Your task to perform on an android device: open app "AliExpress" Image 0: 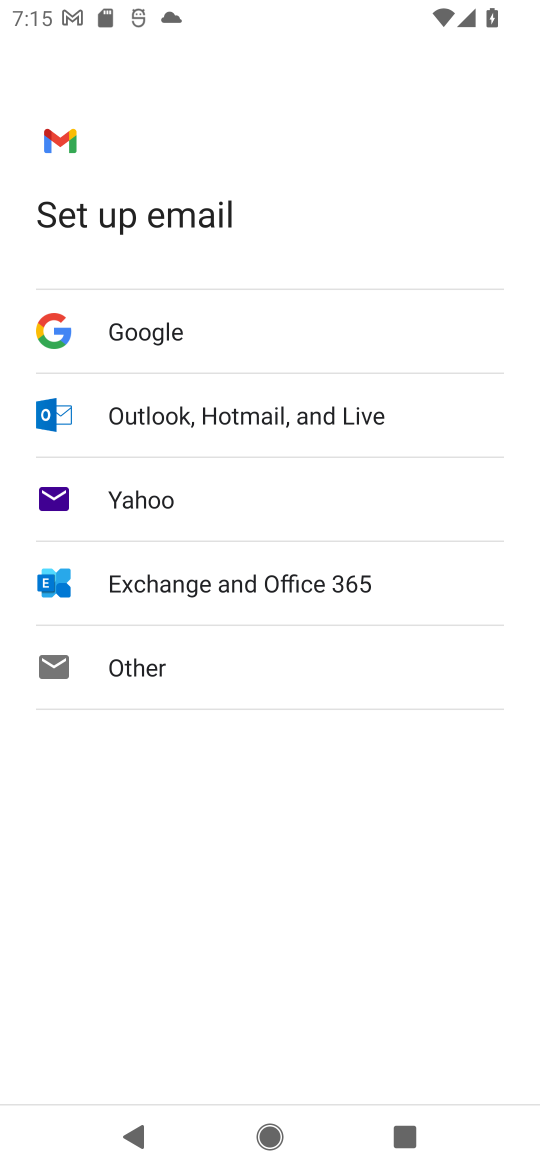
Step 0: press home button
Your task to perform on an android device: open app "AliExpress" Image 1: 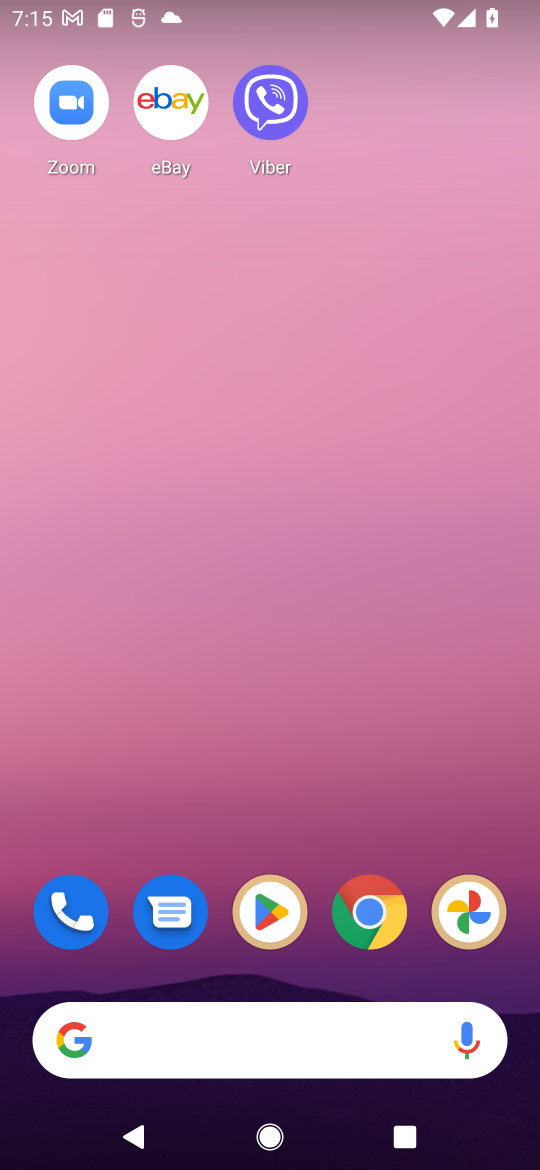
Step 1: click (274, 903)
Your task to perform on an android device: open app "AliExpress" Image 2: 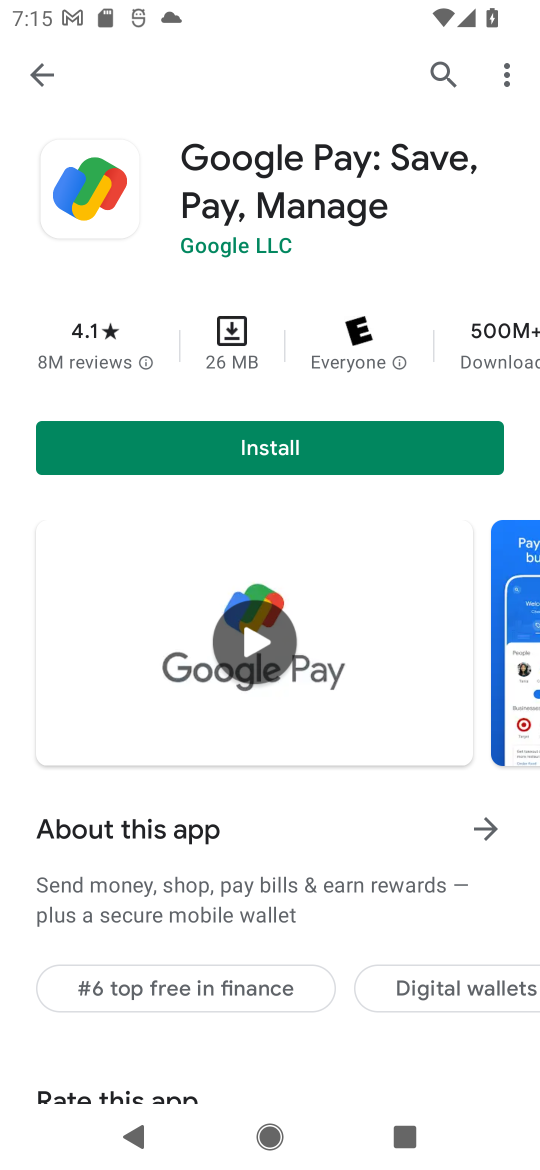
Step 2: click (433, 66)
Your task to perform on an android device: open app "AliExpress" Image 3: 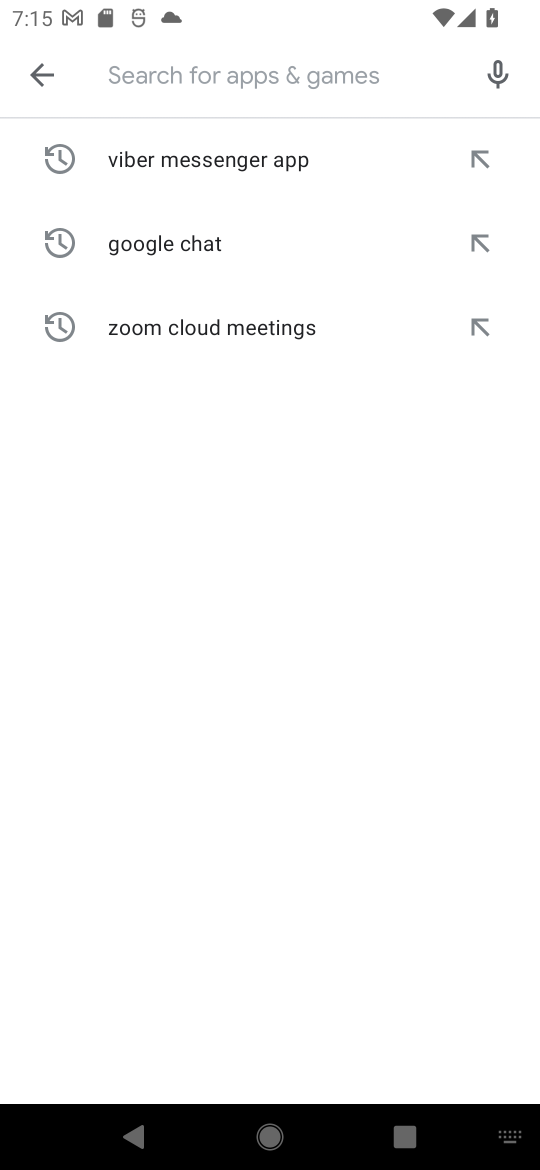
Step 3: type "AliExpress"
Your task to perform on an android device: open app "AliExpress" Image 4: 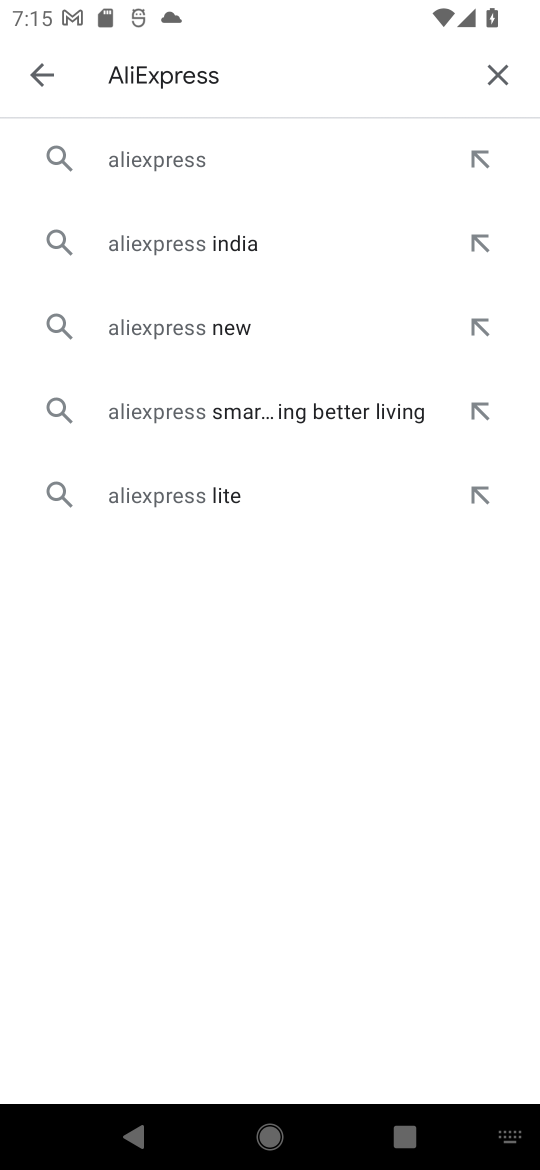
Step 4: click (161, 165)
Your task to perform on an android device: open app "AliExpress" Image 5: 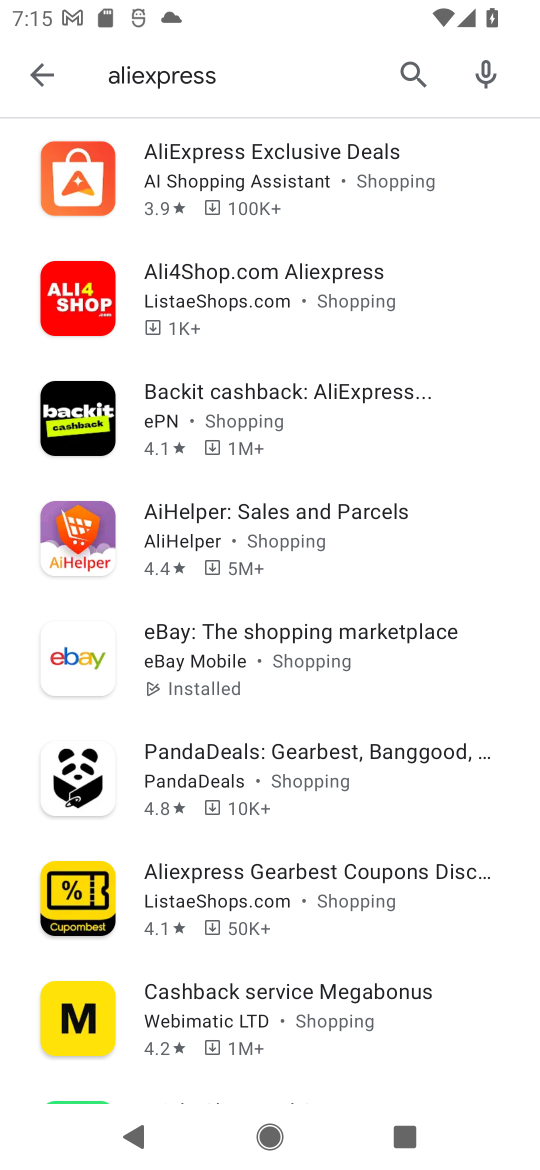
Step 5: click (184, 168)
Your task to perform on an android device: open app "AliExpress" Image 6: 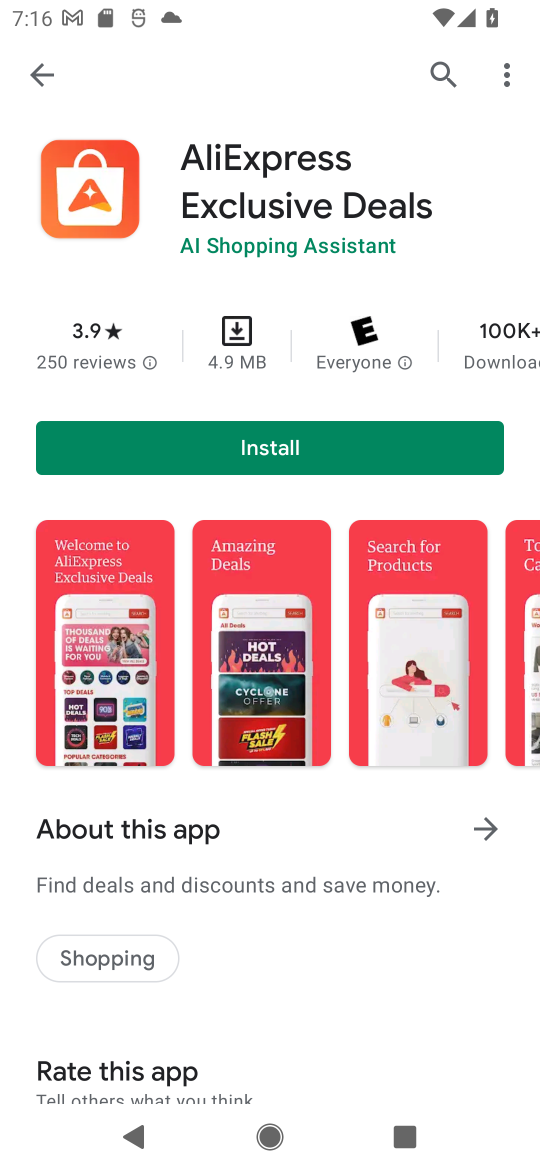
Step 6: task complete